Your task to perform on an android device: Show me productivity apps on the Play Store Image 0: 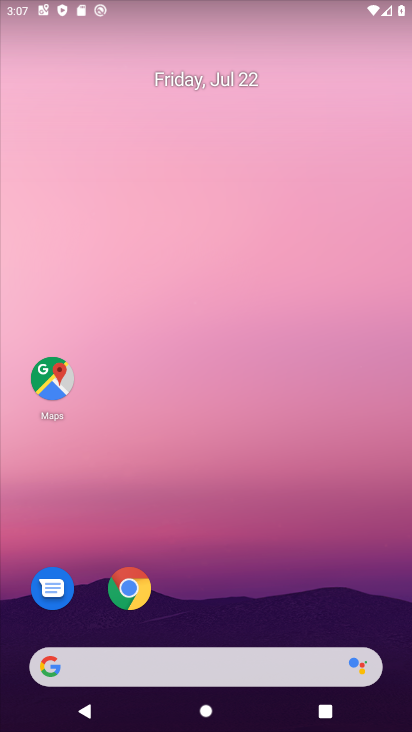
Step 0: drag from (183, 625) to (242, 222)
Your task to perform on an android device: Show me productivity apps on the Play Store Image 1: 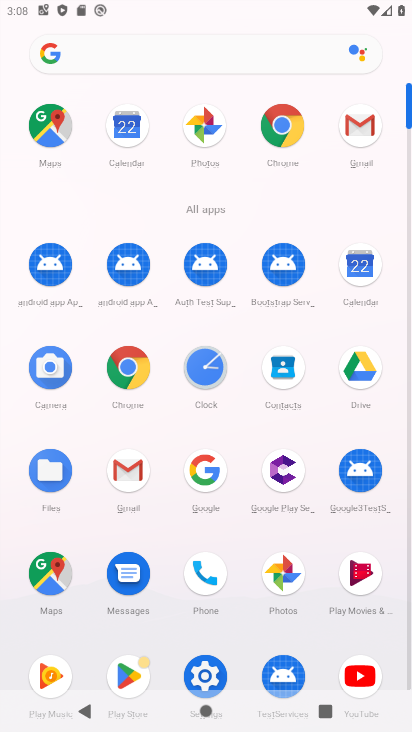
Step 1: click (131, 674)
Your task to perform on an android device: Show me productivity apps on the Play Store Image 2: 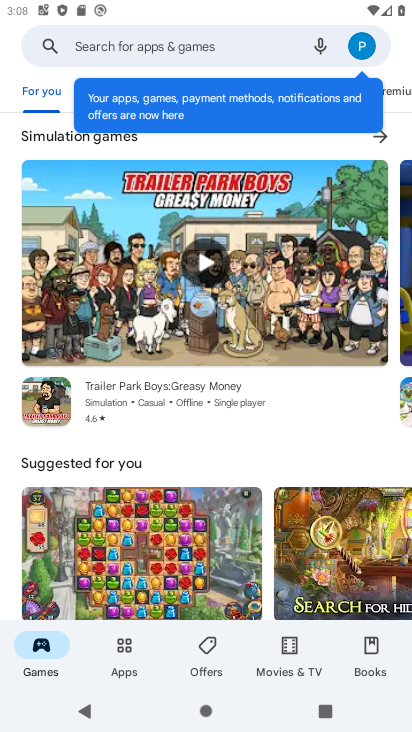
Step 2: click (125, 660)
Your task to perform on an android device: Show me productivity apps on the Play Store Image 3: 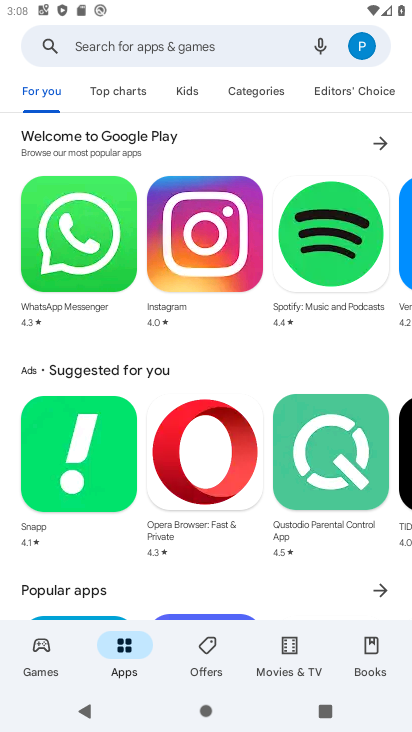
Step 3: task complete